Your task to perform on an android device: turn notification dots off Image 0: 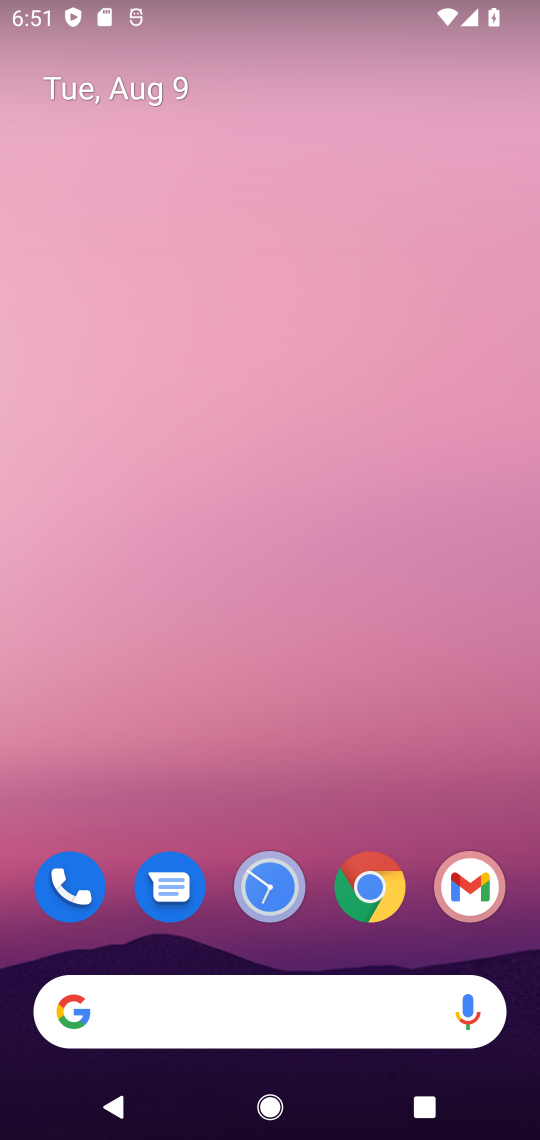
Step 0: drag from (285, 796) to (267, 0)
Your task to perform on an android device: turn notification dots off Image 1: 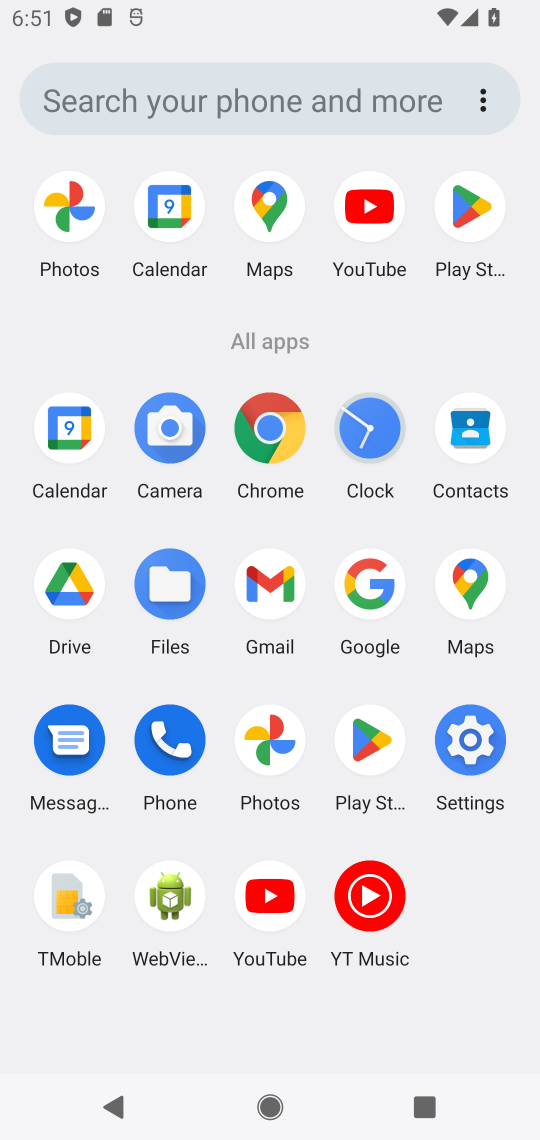
Step 1: click (463, 745)
Your task to perform on an android device: turn notification dots off Image 2: 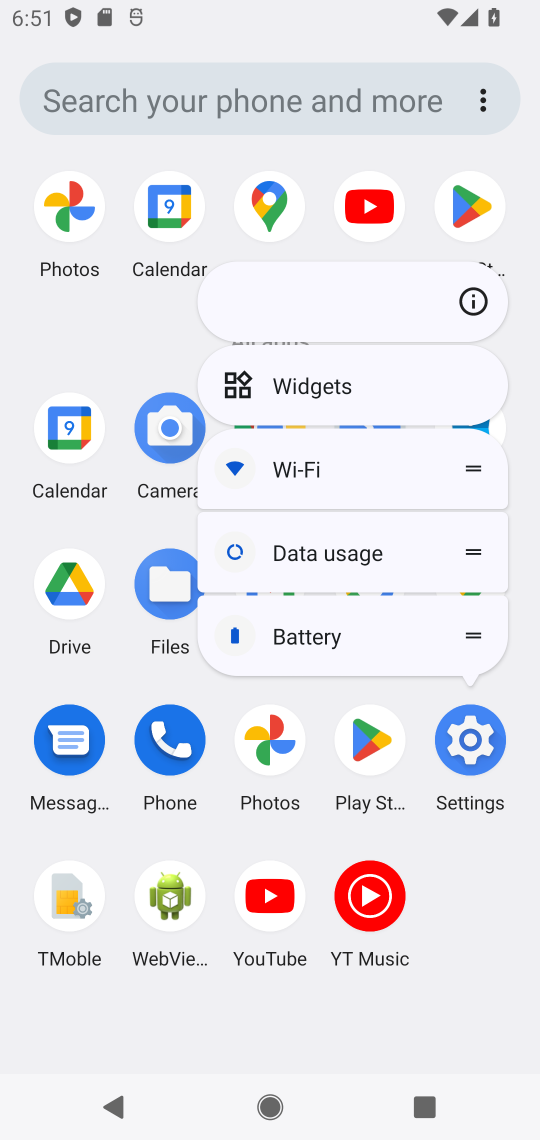
Step 2: click (463, 743)
Your task to perform on an android device: turn notification dots off Image 3: 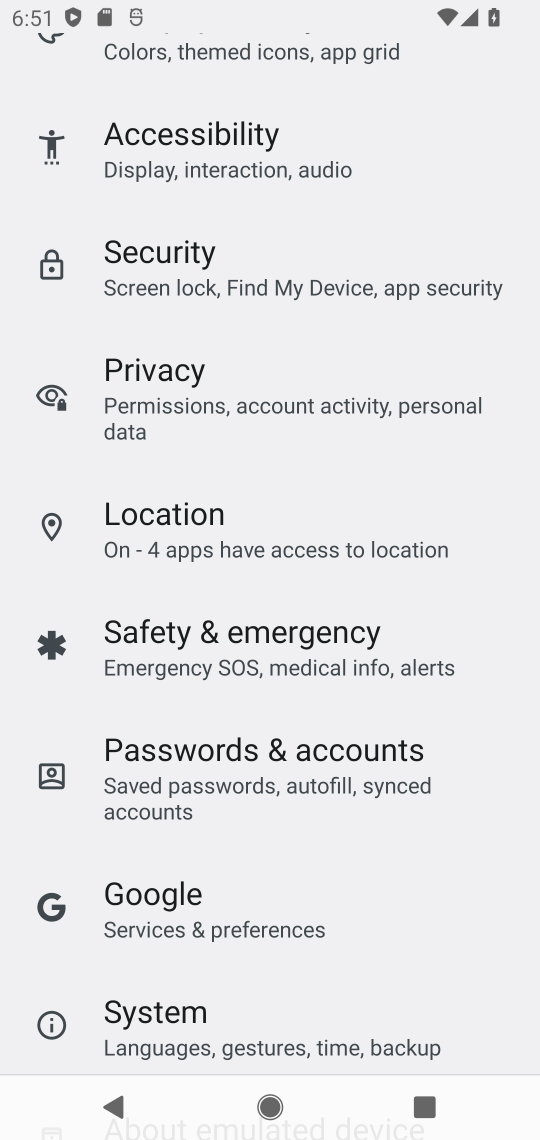
Step 3: drag from (288, 245) to (302, 1003)
Your task to perform on an android device: turn notification dots off Image 4: 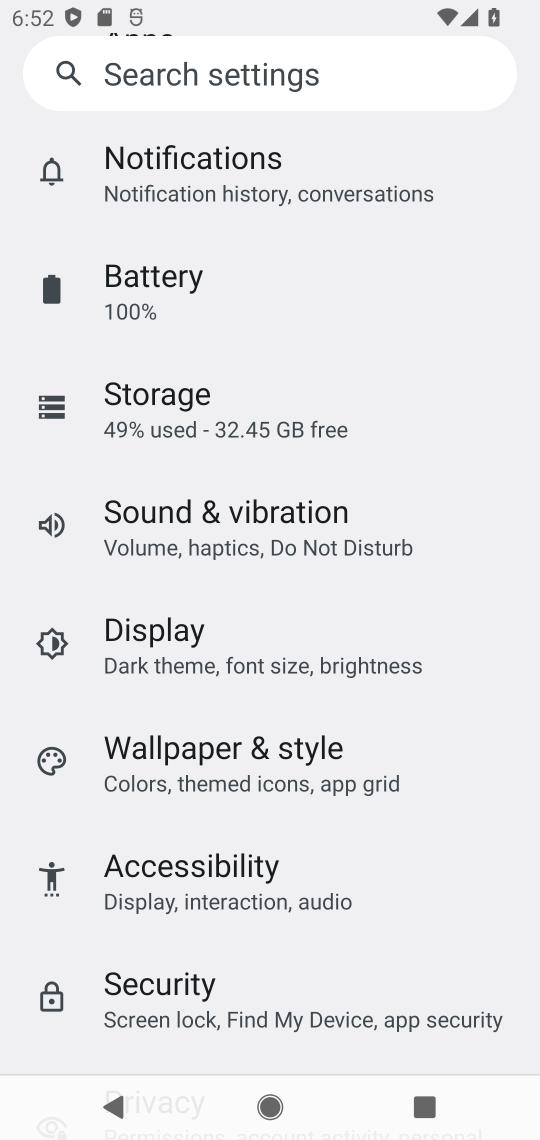
Step 4: click (279, 177)
Your task to perform on an android device: turn notification dots off Image 5: 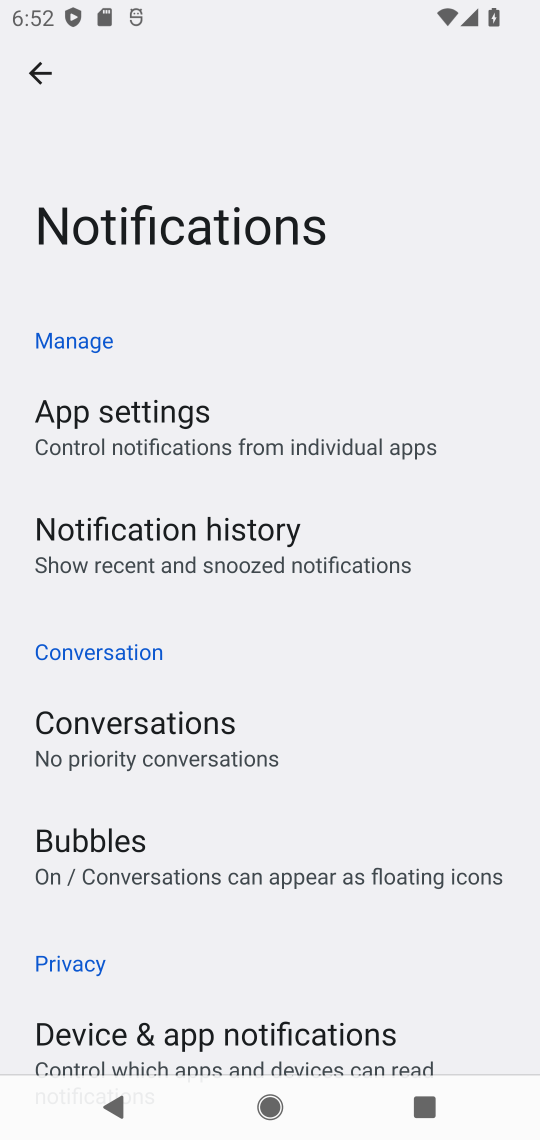
Step 5: task complete